Your task to perform on an android device: See recent photos Image 0: 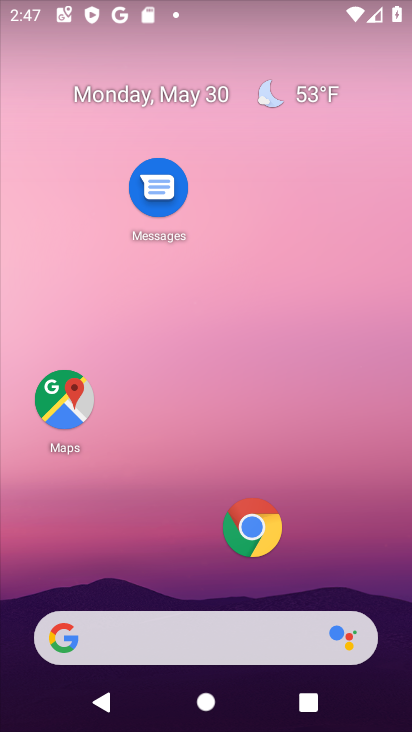
Step 0: drag from (149, 582) to (295, 150)
Your task to perform on an android device: See recent photos Image 1: 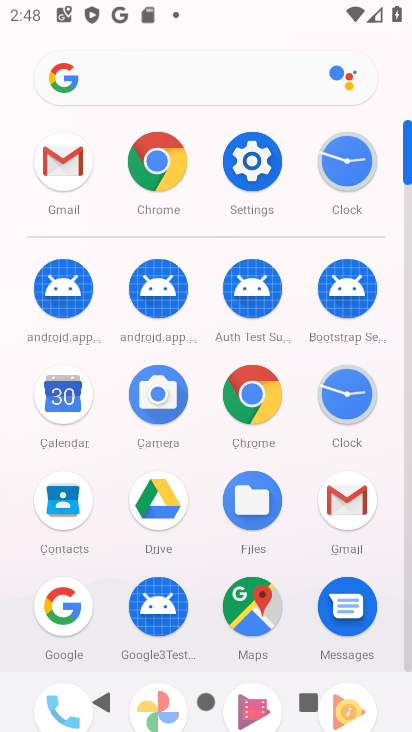
Step 1: drag from (192, 252) to (191, 4)
Your task to perform on an android device: See recent photos Image 2: 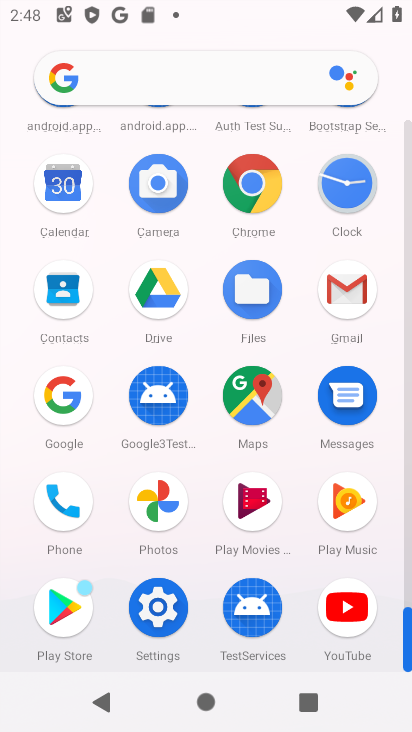
Step 2: click (153, 493)
Your task to perform on an android device: See recent photos Image 3: 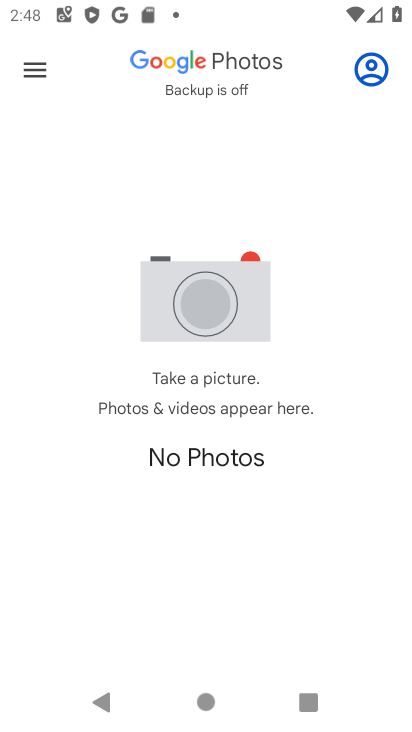
Step 3: click (23, 100)
Your task to perform on an android device: See recent photos Image 4: 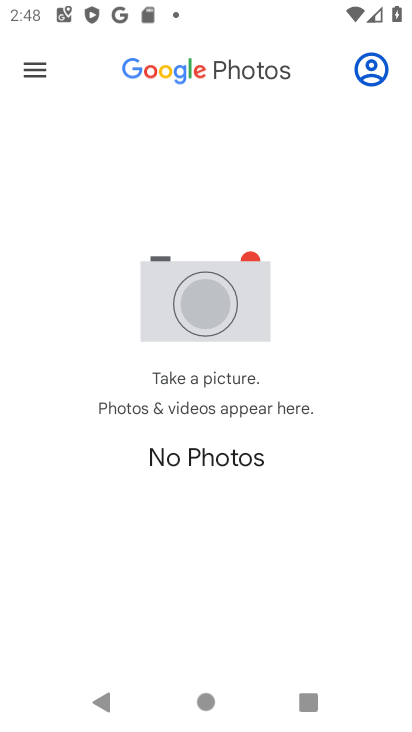
Step 4: click (36, 75)
Your task to perform on an android device: See recent photos Image 5: 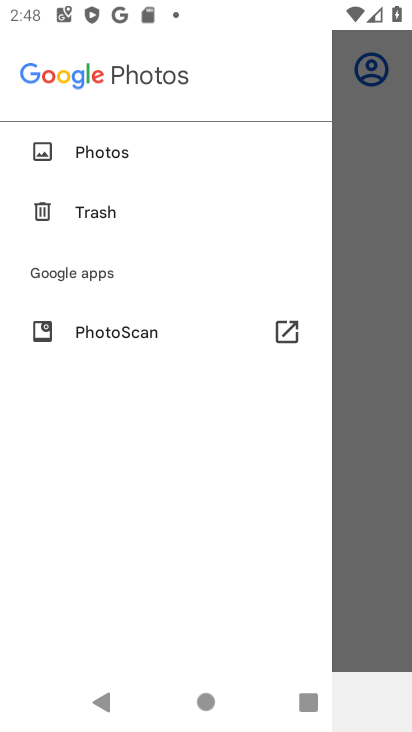
Step 5: click (87, 159)
Your task to perform on an android device: See recent photos Image 6: 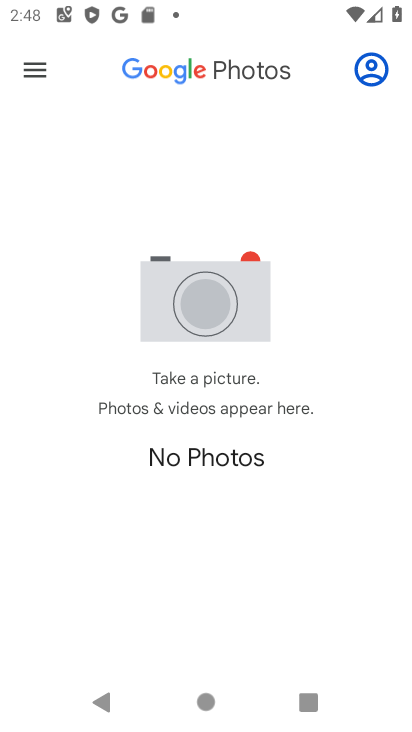
Step 6: task complete